Your task to perform on an android device: What's the weather going to be tomorrow? Image 0: 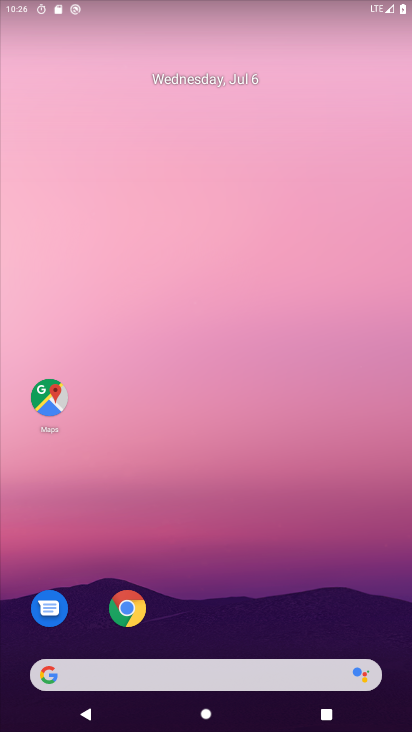
Step 0: drag from (260, 593) to (320, 5)
Your task to perform on an android device: What's the weather going to be tomorrow? Image 1: 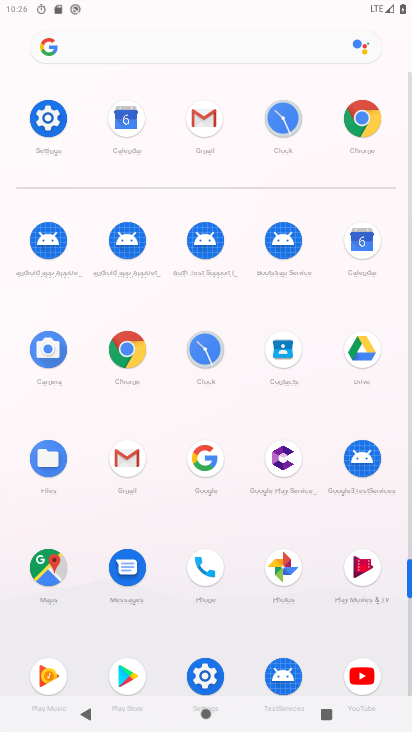
Step 1: press home button
Your task to perform on an android device: What's the weather going to be tomorrow? Image 2: 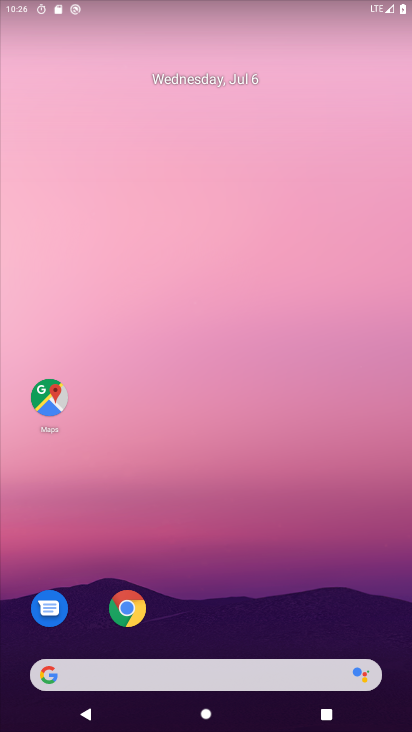
Step 2: click (152, 660)
Your task to perform on an android device: What's the weather going to be tomorrow? Image 3: 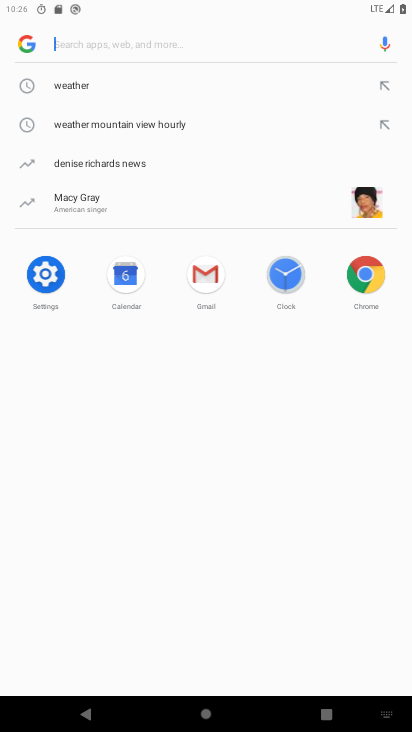
Step 3: click (82, 87)
Your task to perform on an android device: What's the weather going to be tomorrow? Image 4: 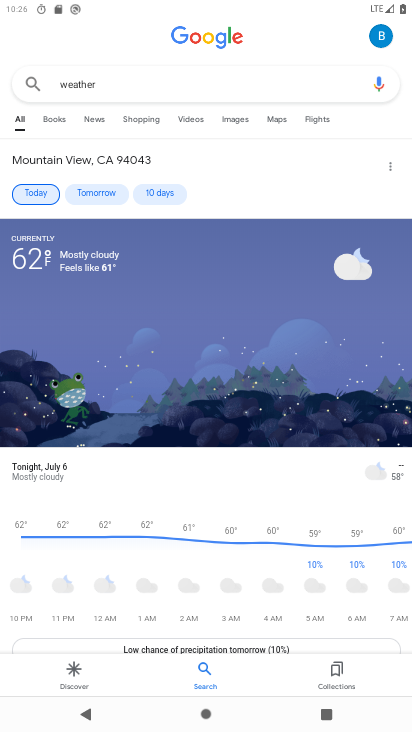
Step 4: click (97, 188)
Your task to perform on an android device: What's the weather going to be tomorrow? Image 5: 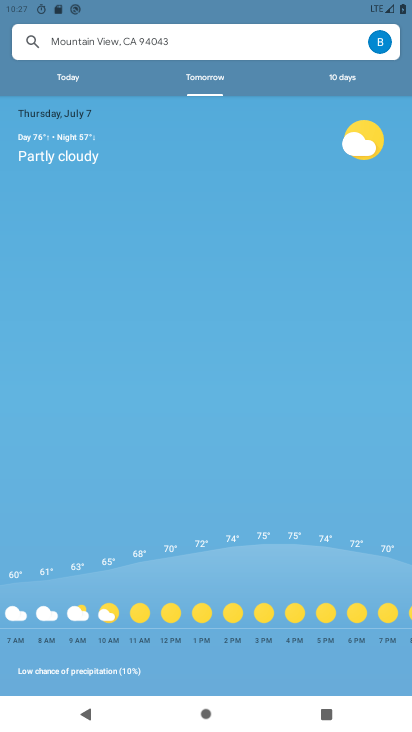
Step 5: task complete